Your task to perform on an android device: Open calendar and show me the third week of next month Image 0: 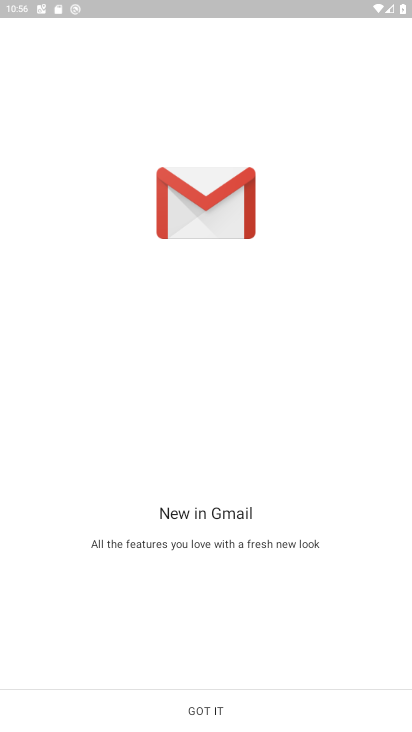
Step 0: press home button
Your task to perform on an android device: Open calendar and show me the third week of next month Image 1: 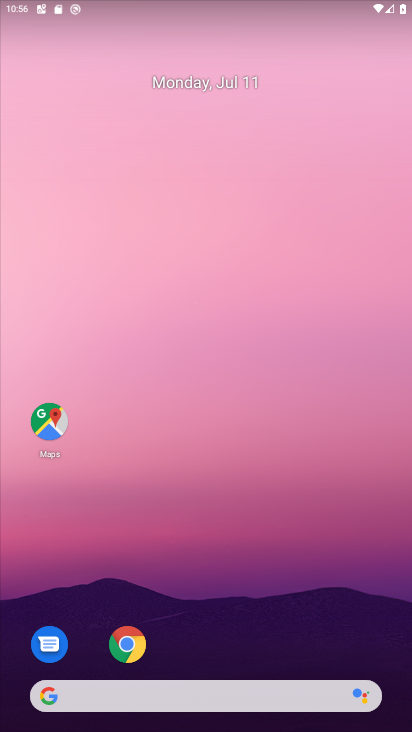
Step 1: drag from (242, 662) to (270, 213)
Your task to perform on an android device: Open calendar and show me the third week of next month Image 2: 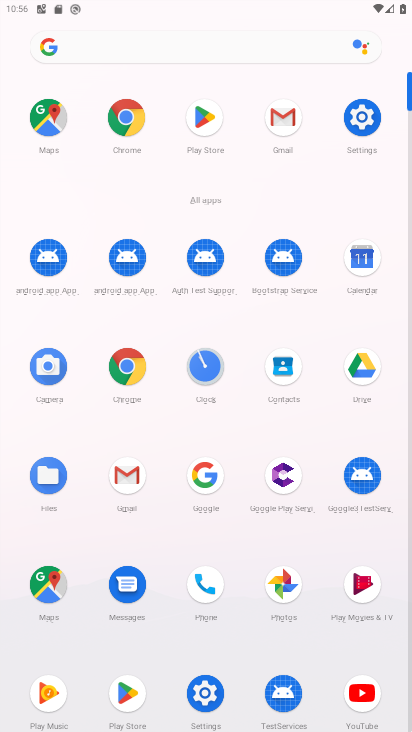
Step 2: click (363, 254)
Your task to perform on an android device: Open calendar and show me the third week of next month Image 3: 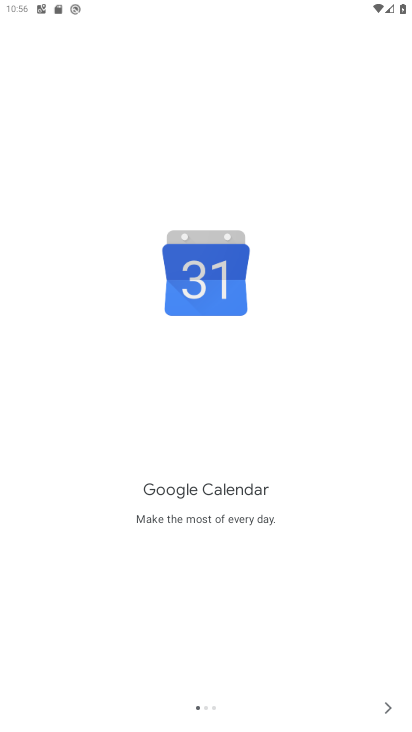
Step 3: click (390, 709)
Your task to perform on an android device: Open calendar and show me the third week of next month Image 4: 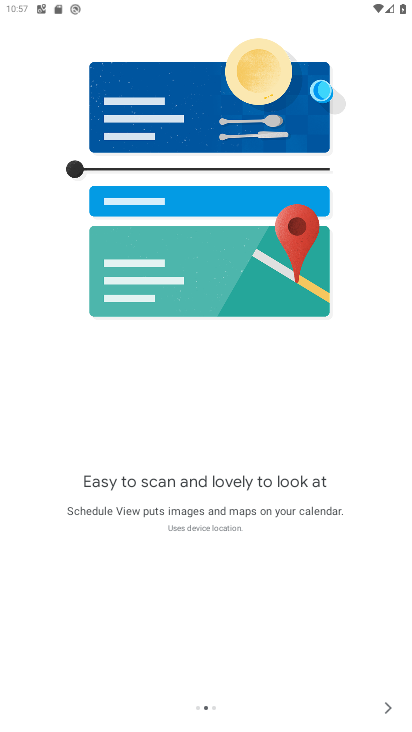
Step 4: click (390, 709)
Your task to perform on an android device: Open calendar and show me the third week of next month Image 5: 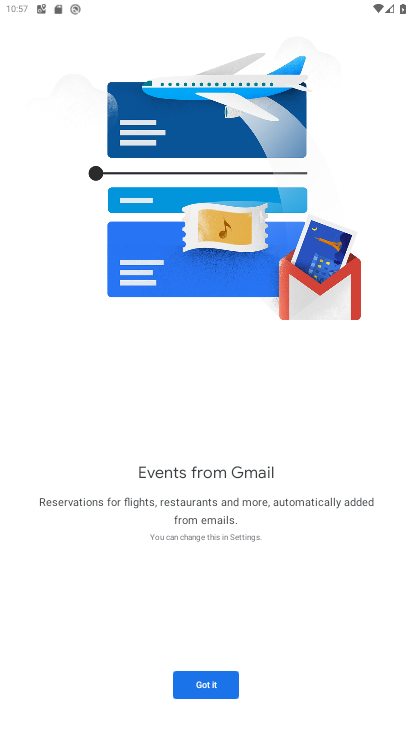
Step 5: click (195, 686)
Your task to perform on an android device: Open calendar and show me the third week of next month Image 6: 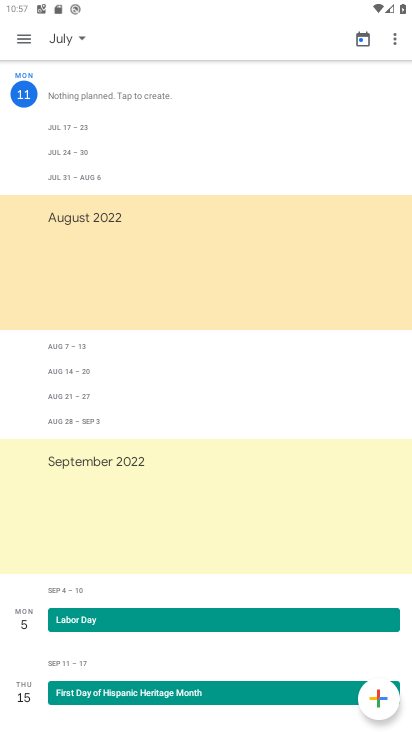
Step 6: click (77, 34)
Your task to perform on an android device: Open calendar and show me the third week of next month Image 7: 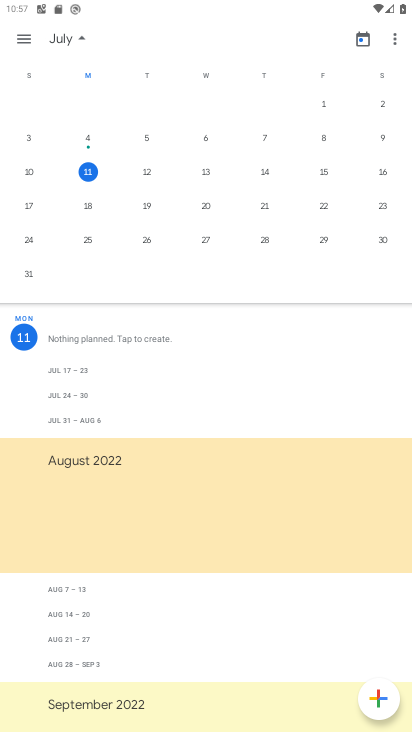
Step 7: drag from (15, 243) to (20, 201)
Your task to perform on an android device: Open calendar and show me the third week of next month Image 8: 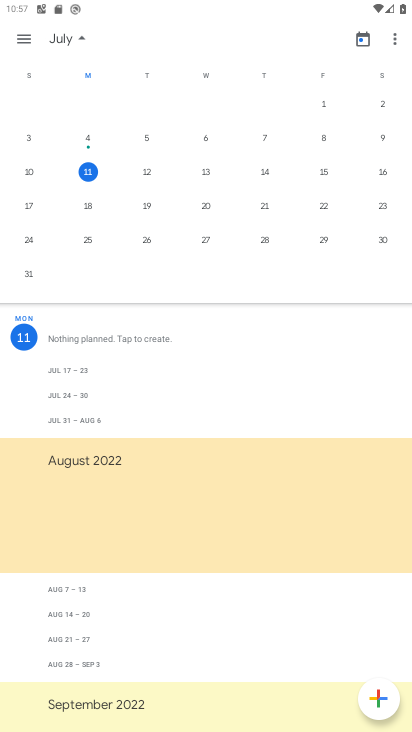
Step 8: drag from (386, 181) to (20, 206)
Your task to perform on an android device: Open calendar and show me the third week of next month Image 9: 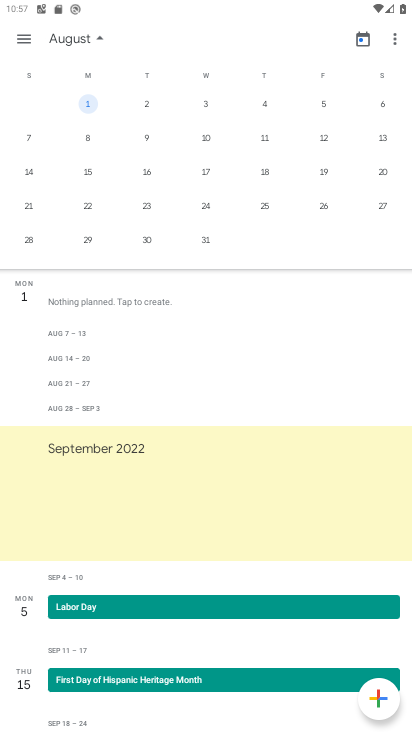
Step 9: click (33, 171)
Your task to perform on an android device: Open calendar and show me the third week of next month Image 10: 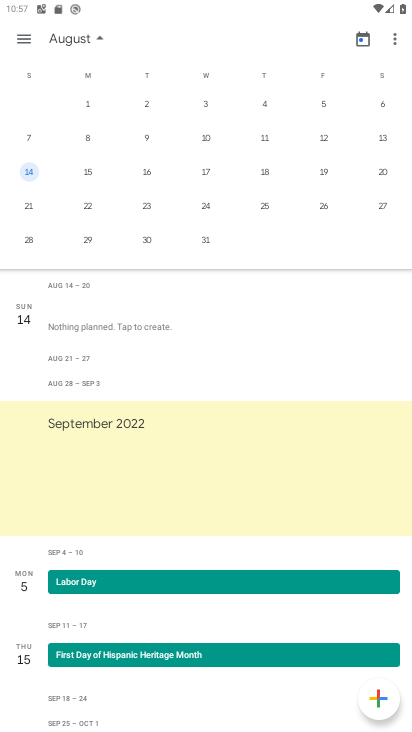
Step 10: task complete